Your task to perform on an android device: toggle data saver in the chrome app Image 0: 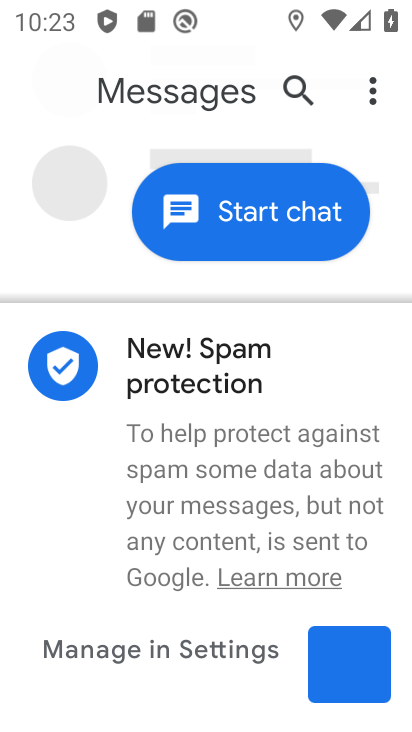
Step 0: click (134, 729)
Your task to perform on an android device: toggle data saver in the chrome app Image 1: 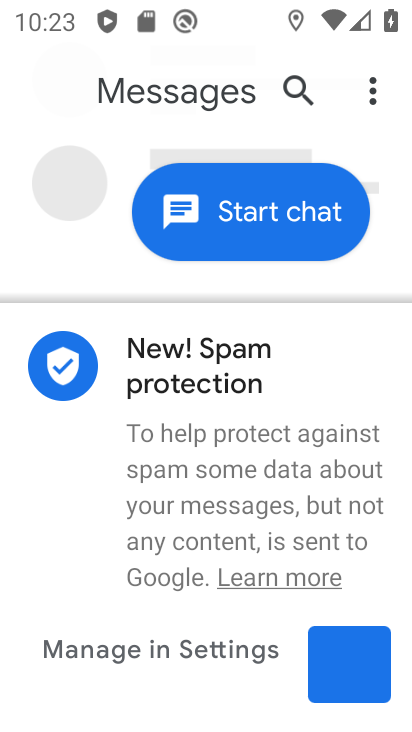
Step 1: press home button
Your task to perform on an android device: toggle data saver in the chrome app Image 2: 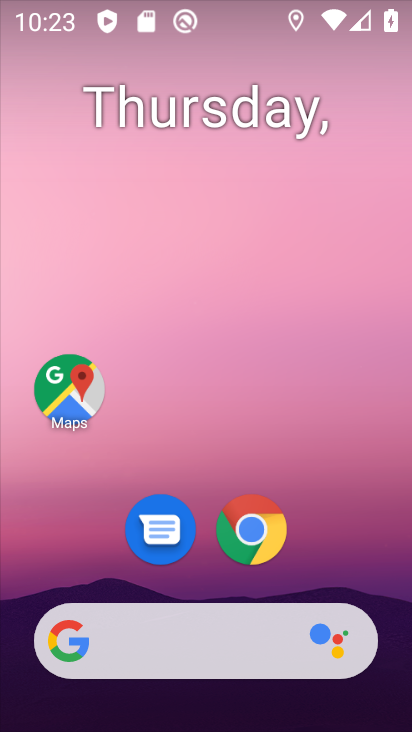
Step 2: click (252, 536)
Your task to perform on an android device: toggle data saver in the chrome app Image 3: 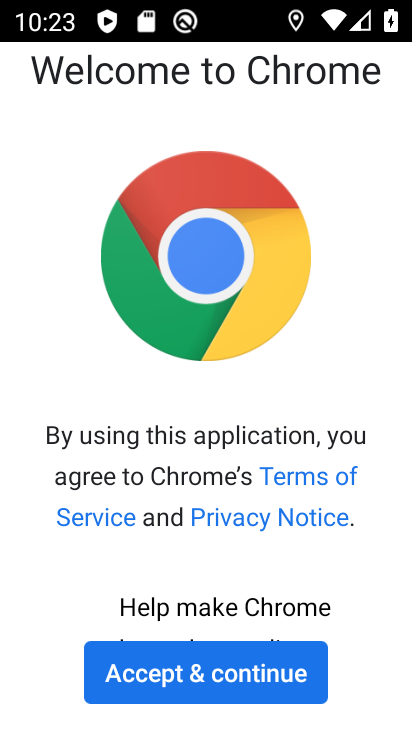
Step 3: click (214, 665)
Your task to perform on an android device: toggle data saver in the chrome app Image 4: 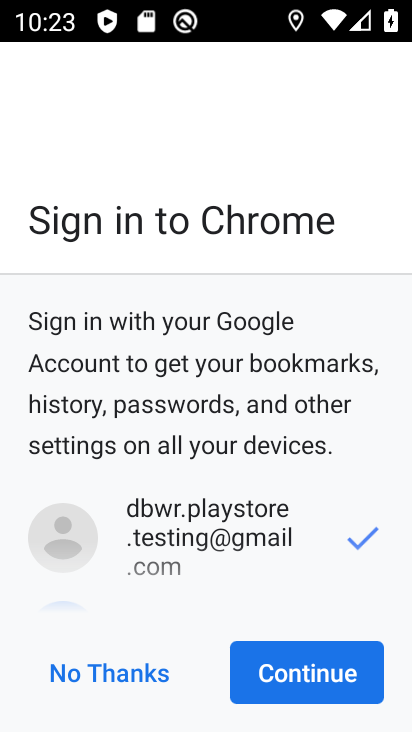
Step 4: click (265, 662)
Your task to perform on an android device: toggle data saver in the chrome app Image 5: 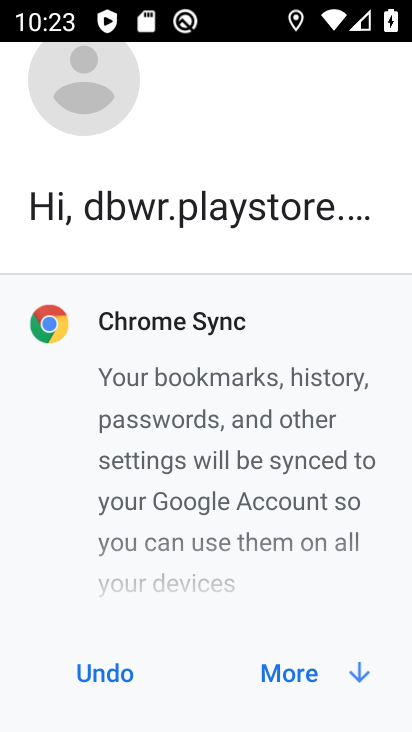
Step 5: click (265, 662)
Your task to perform on an android device: toggle data saver in the chrome app Image 6: 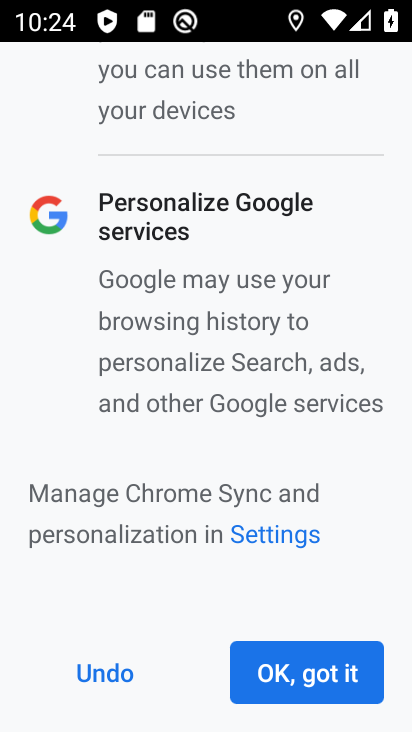
Step 6: click (265, 662)
Your task to perform on an android device: toggle data saver in the chrome app Image 7: 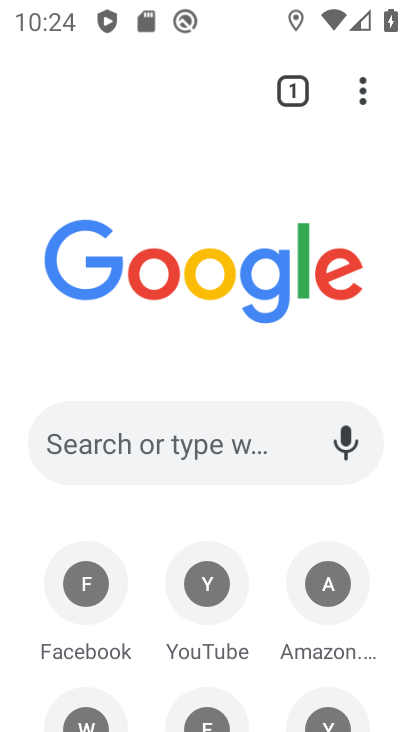
Step 7: click (371, 90)
Your task to perform on an android device: toggle data saver in the chrome app Image 8: 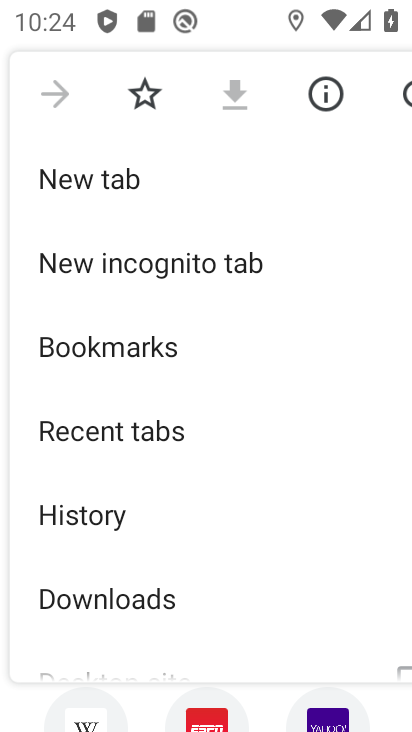
Step 8: drag from (143, 475) to (278, 155)
Your task to perform on an android device: toggle data saver in the chrome app Image 9: 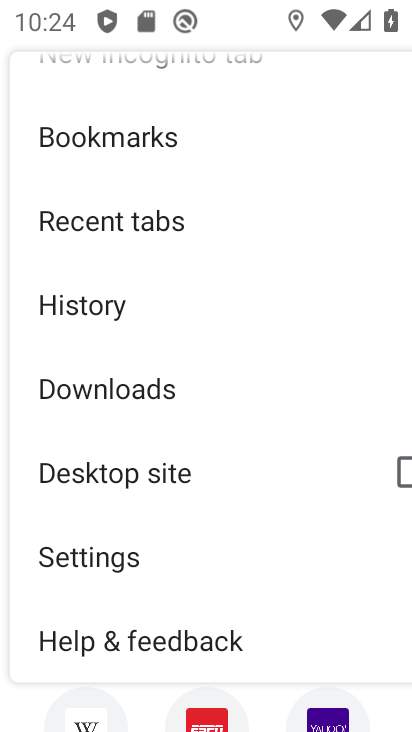
Step 9: click (137, 568)
Your task to perform on an android device: toggle data saver in the chrome app Image 10: 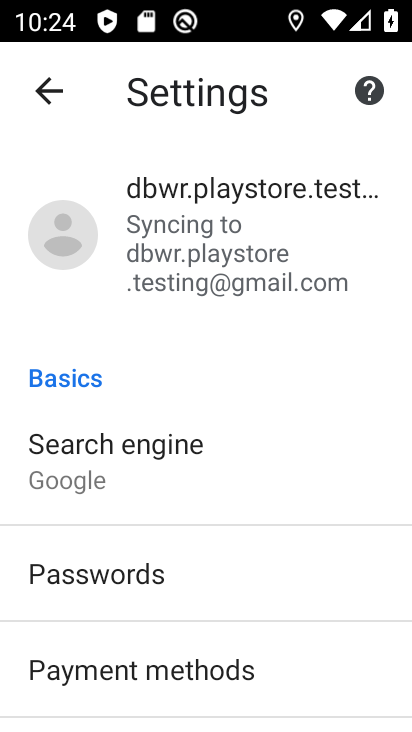
Step 10: drag from (132, 579) to (244, 138)
Your task to perform on an android device: toggle data saver in the chrome app Image 11: 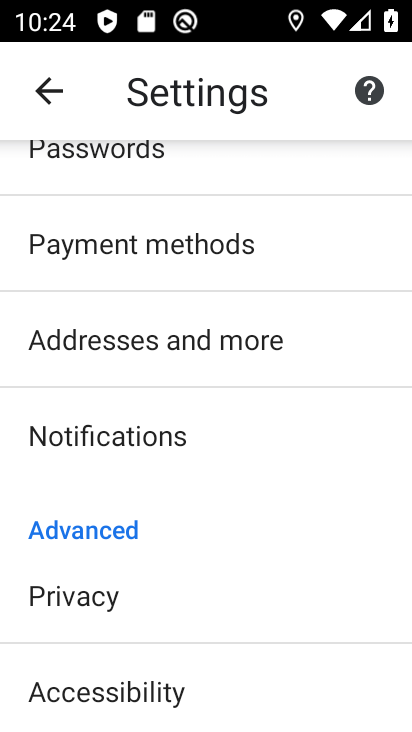
Step 11: drag from (168, 593) to (245, 174)
Your task to perform on an android device: toggle data saver in the chrome app Image 12: 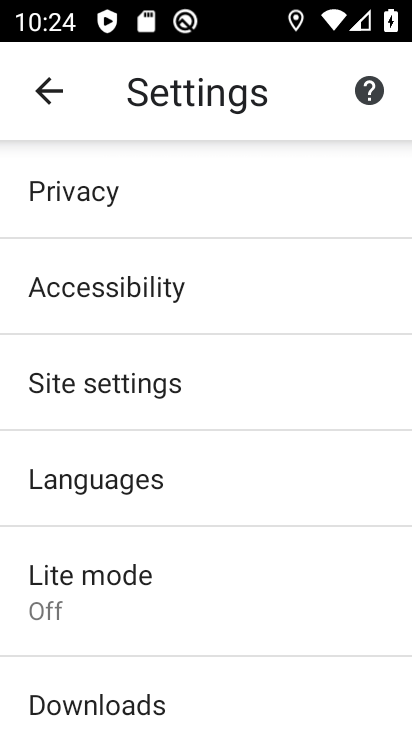
Step 12: click (125, 593)
Your task to perform on an android device: toggle data saver in the chrome app Image 13: 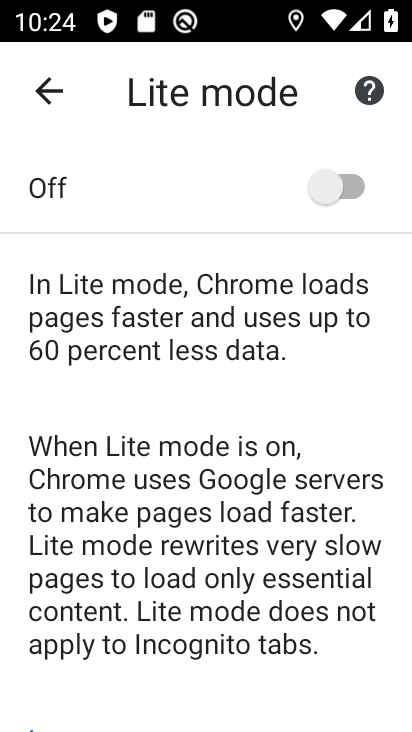
Step 13: click (335, 186)
Your task to perform on an android device: toggle data saver in the chrome app Image 14: 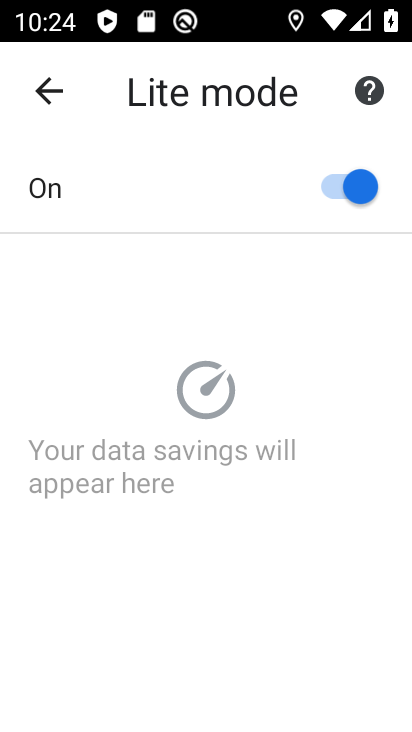
Step 14: task complete